Your task to perform on an android device: search for starred emails in the gmail app Image 0: 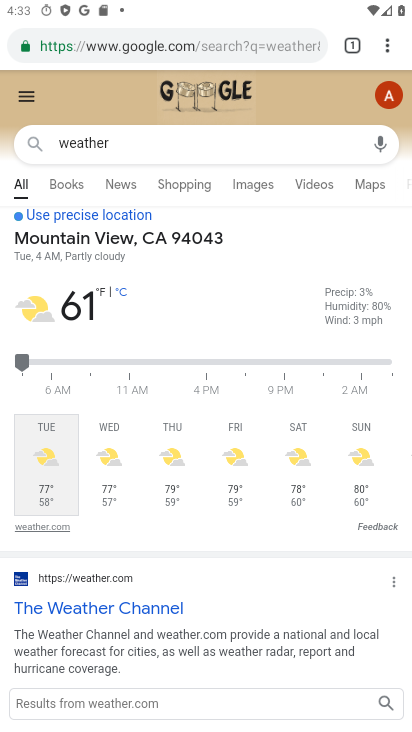
Step 0: press home button
Your task to perform on an android device: search for starred emails in the gmail app Image 1: 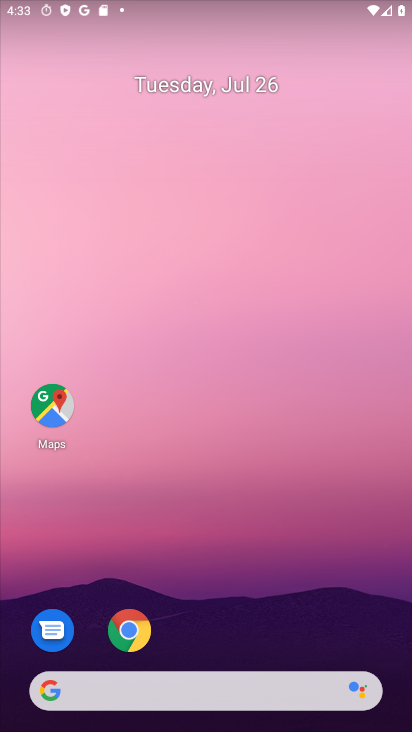
Step 1: drag from (296, 507) to (266, 116)
Your task to perform on an android device: search for starred emails in the gmail app Image 2: 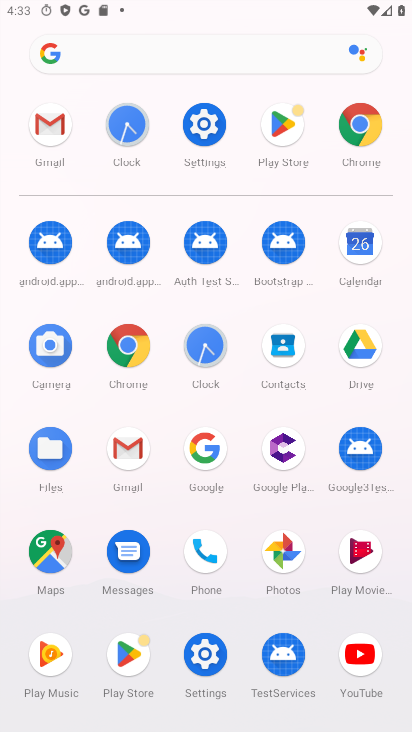
Step 2: click (56, 115)
Your task to perform on an android device: search for starred emails in the gmail app Image 3: 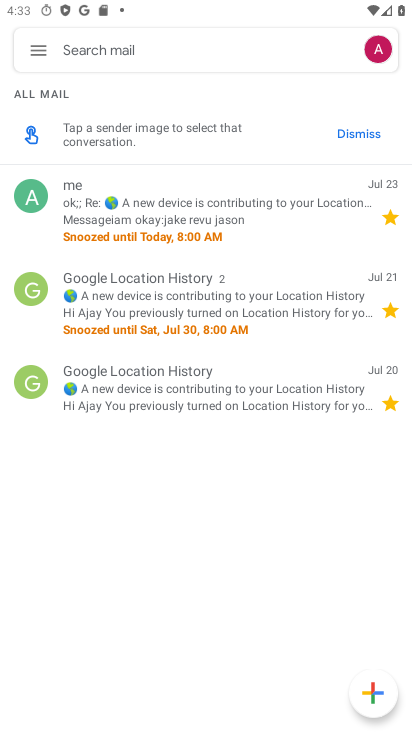
Step 3: click (37, 43)
Your task to perform on an android device: search for starred emails in the gmail app Image 4: 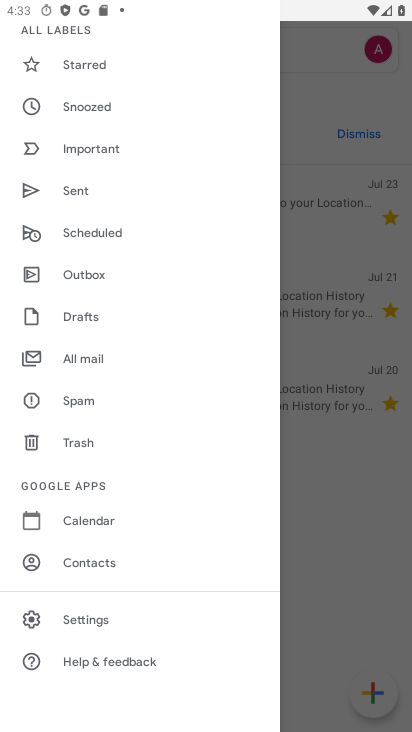
Step 4: drag from (81, 199) to (113, 585)
Your task to perform on an android device: search for starred emails in the gmail app Image 5: 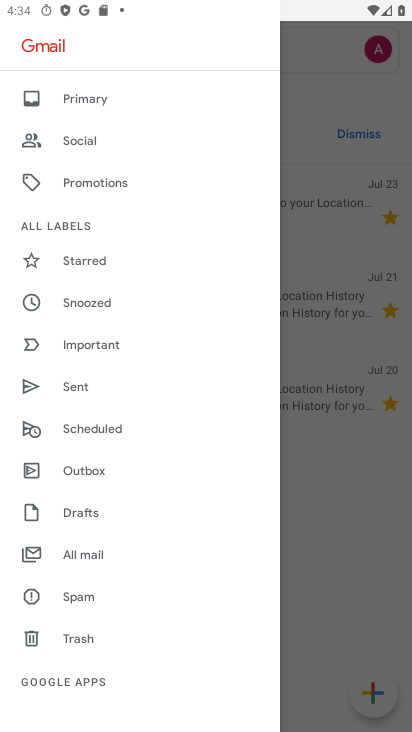
Step 5: click (82, 260)
Your task to perform on an android device: search for starred emails in the gmail app Image 6: 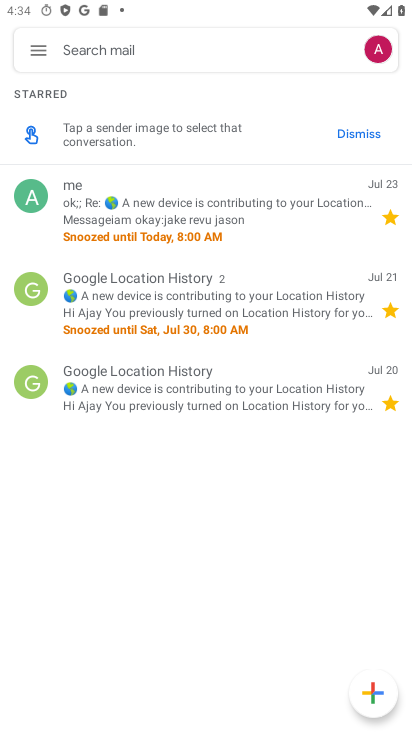
Step 6: task complete